Your task to perform on an android device: Open Youtube and go to "Your channel" Image 0: 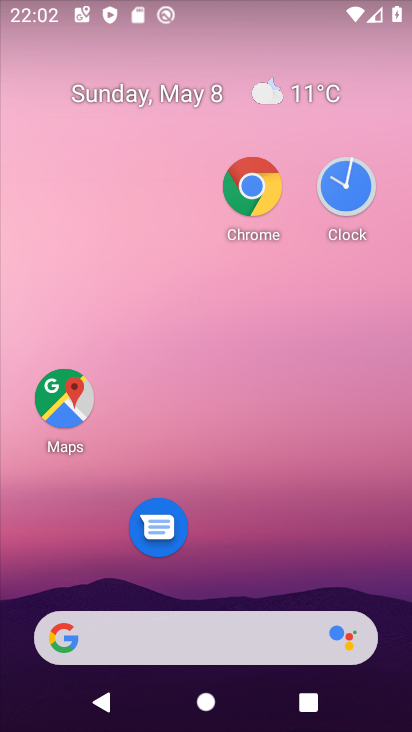
Step 0: drag from (268, 559) to (301, 119)
Your task to perform on an android device: Open Youtube and go to "Your channel" Image 1: 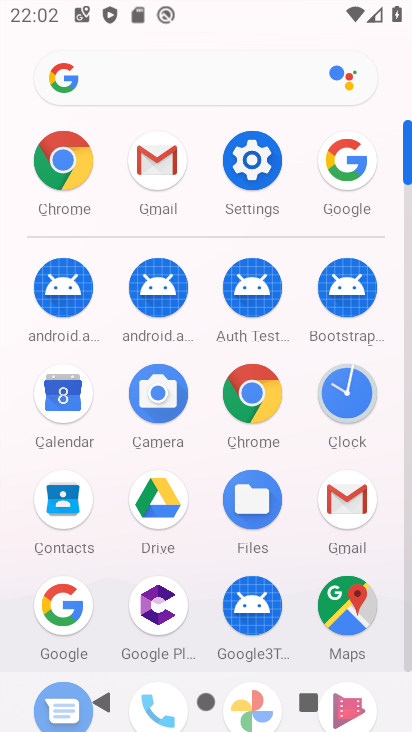
Step 1: drag from (166, 639) to (241, 276)
Your task to perform on an android device: Open Youtube and go to "Your channel" Image 2: 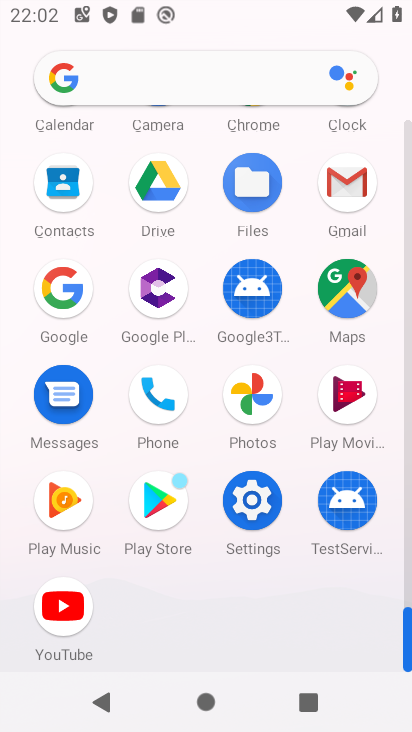
Step 2: click (65, 607)
Your task to perform on an android device: Open Youtube and go to "Your channel" Image 3: 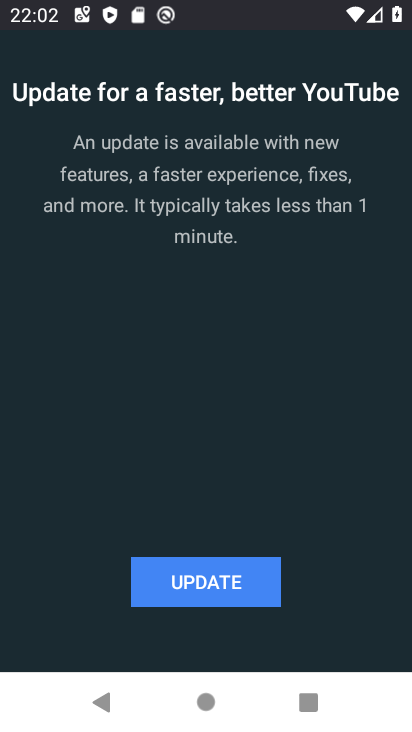
Step 3: click (177, 583)
Your task to perform on an android device: Open Youtube and go to "Your channel" Image 4: 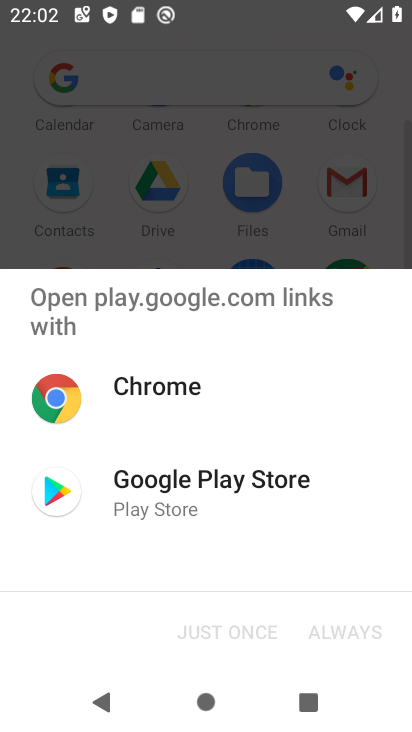
Step 4: click (174, 488)
Your task to perform on an android device: Open Youtube and go to "Your channel" Image 5: 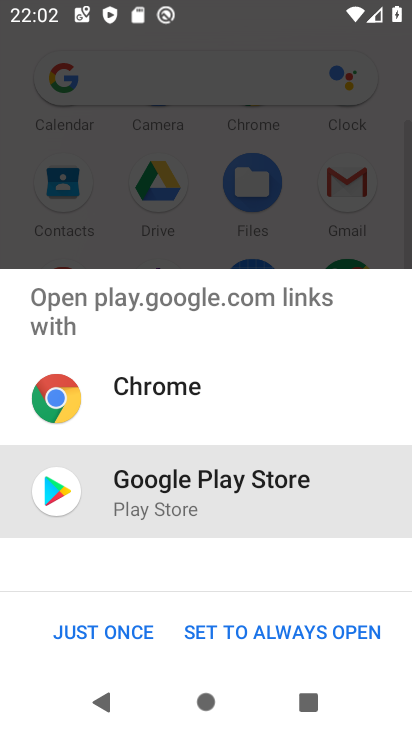
Step 5: click (97, 636)
Your task to perform on an android device: Open Youtube and go to "Your channel" Image 6: 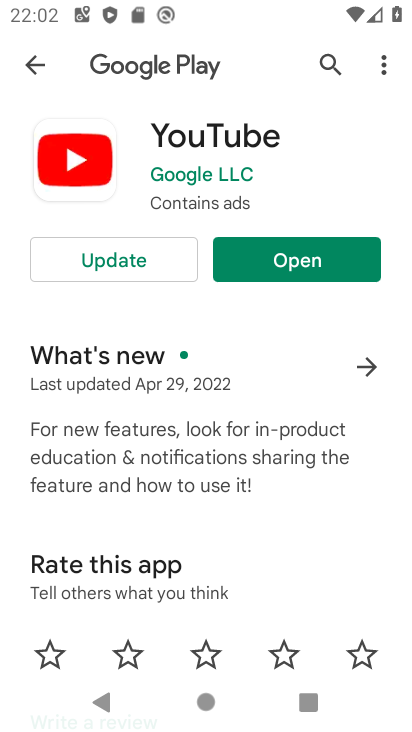
Step 6: click (99, 261)
Your task to perform on an android device: Open Youtube and go to "Your channel" Image 7: 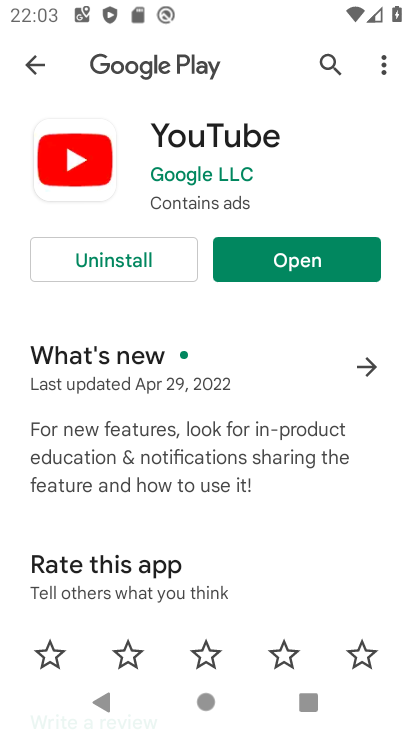
Step 7: click (227, 264)
Your task to perform on an android device: Open Youtube and go to "Your channel" Image 8: 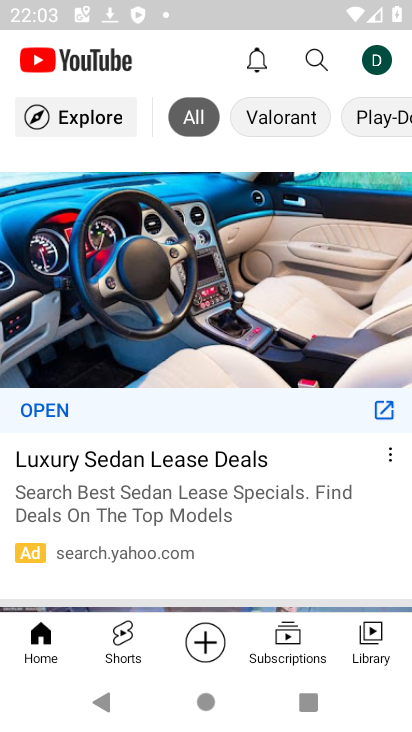
Step 8: click (386, 63)
Your task to perform on an android device: Open Youtube and go to "Your channel" Image 9: 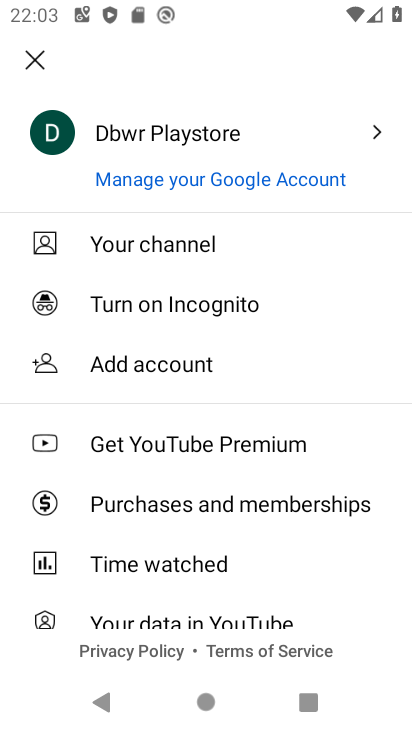
Step 9: click (270, 138)
Your task to perform on an android device: Open Youtube and go to "Your channel" Image 10: 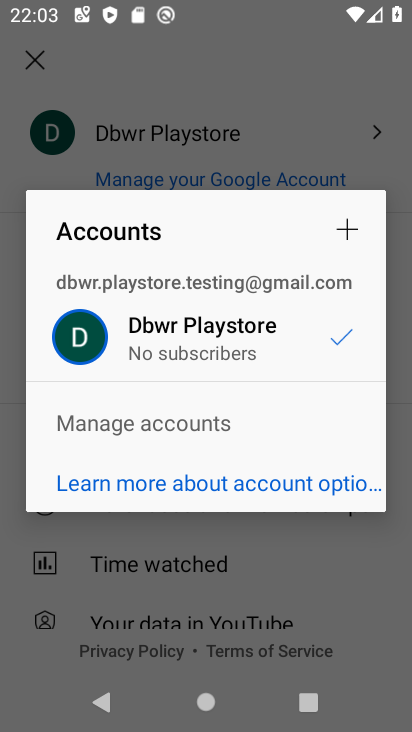
Step 10: click (219, 334)
Your task to perform on an android device: Open Youtube and go to "Your channel" Image 11: 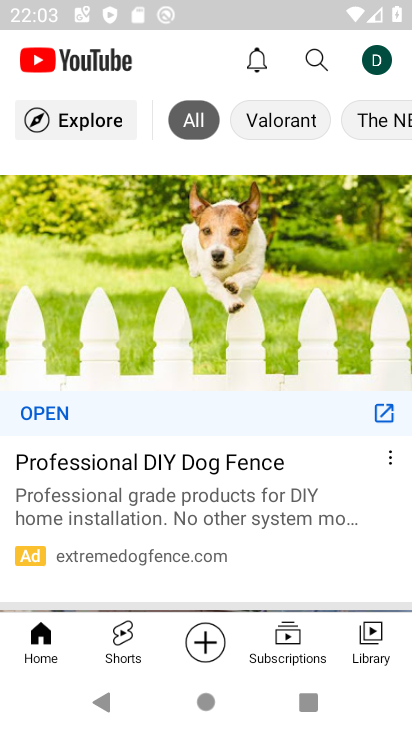
Step 11: task complete